Your task to perform on an android device: turn off sleep mode Image 0: 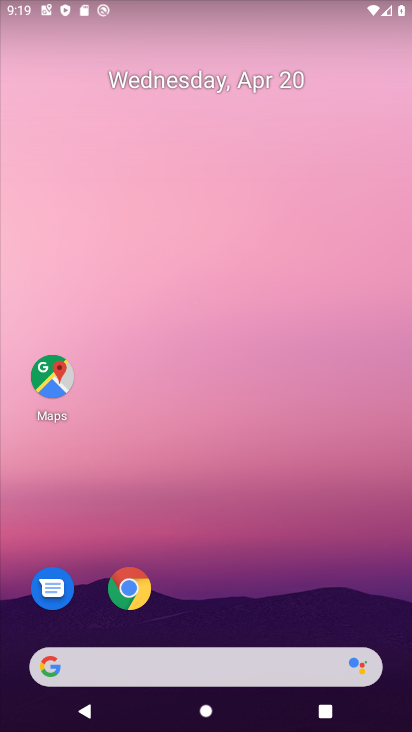
Step 0: drag from (211, 507) to (77, 153)
Your task to perform on an android device: turn off sleep mode Image 1: 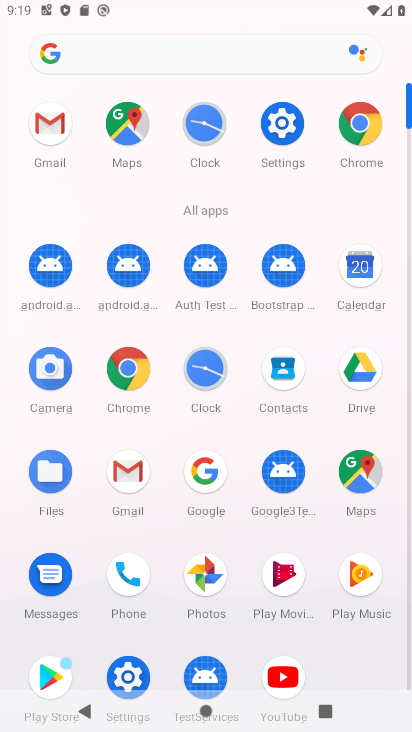
Step 1: click (293, 125)
Your task to perform on an android device: turn off sleep mode Image 2: 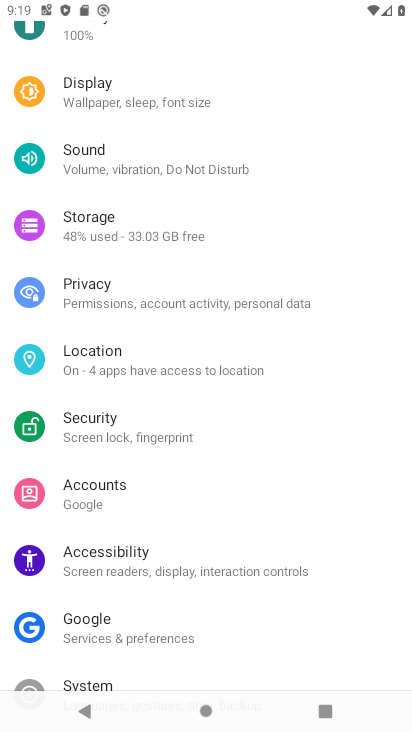
Step 2: click (133, 97)
Your task to perform on an android device: turn off sleep mode Image 3: 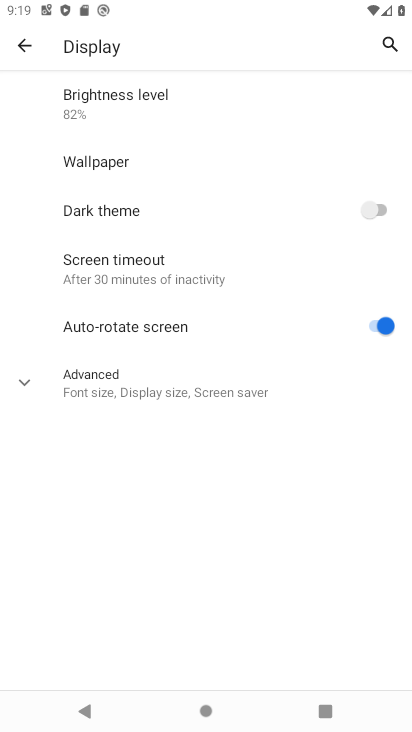
Step 3: click (95, 378)
Your task to perform on an android device: turn off sleep mode Image 4: 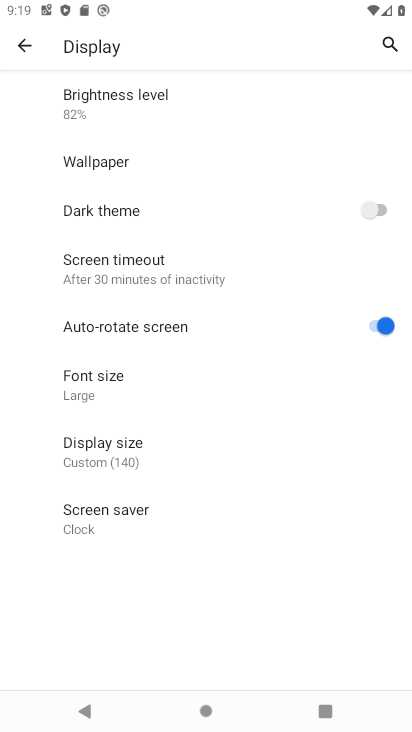
Step 4: task complete